Your task to perform on an android device: Go to privacy settings Image 0: 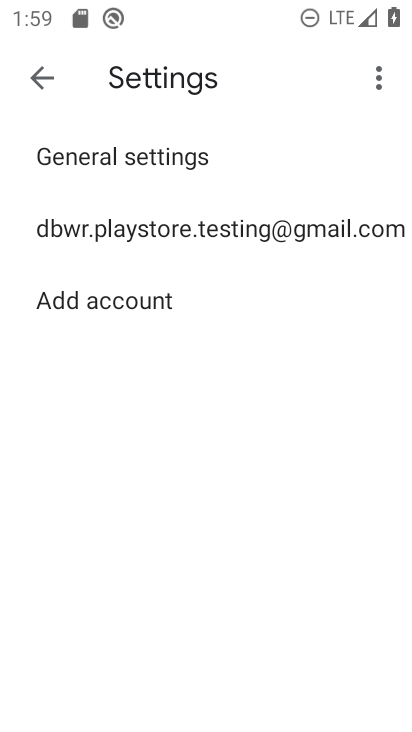
Step 0: press home button
Your task to perform on an android device: Go to privacy settings Image 1: 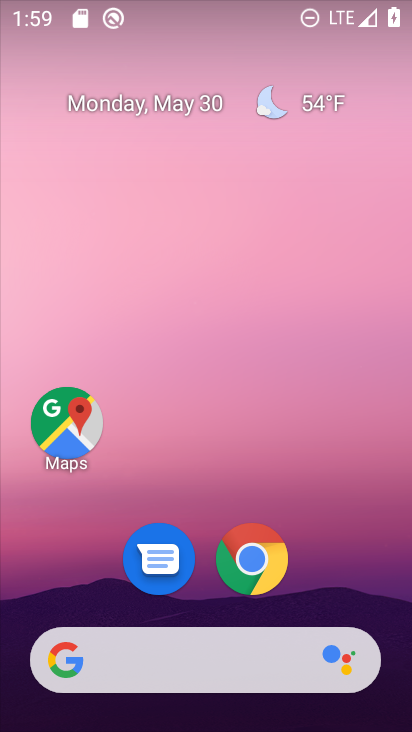
Step 1: drag from (308, 591) to (344, 3)
Your task to perform on an android device: Go to privacy settings Image 2: 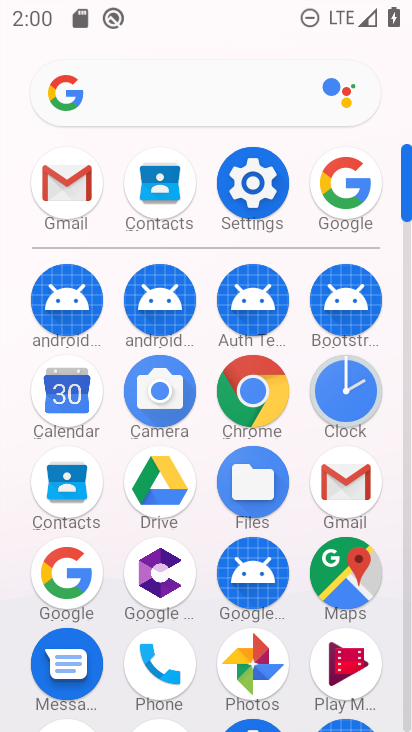
Step 2: click (241, 188)
Your task to perform on an android device: Go to privacy settings Image 3: 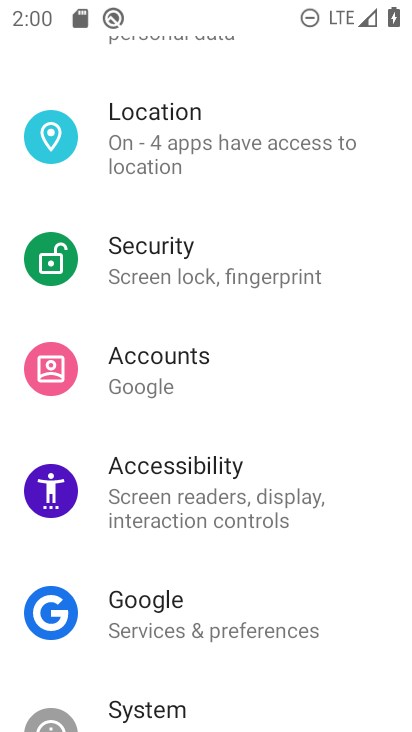
Step 3: drag from (168, 576) to (175, 651)
Your task to perform on an android device: Go to privacy settings Image 4: 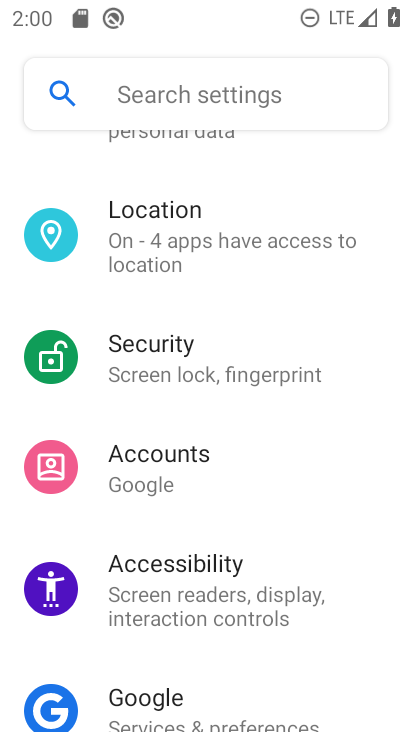
Step 4: drag from (220, 283) to (208, 502)
Your task to perform on an android device: Go to privacy settings Image 5: 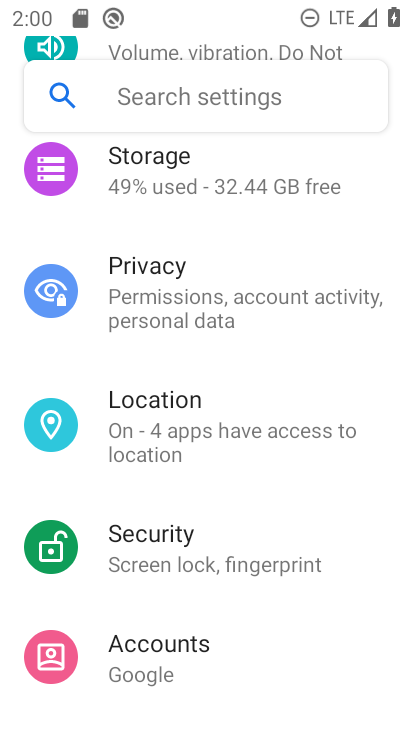
Step 5: click (214, 297)
Your task to perform on an android device: Go to privacy settings Image 6: 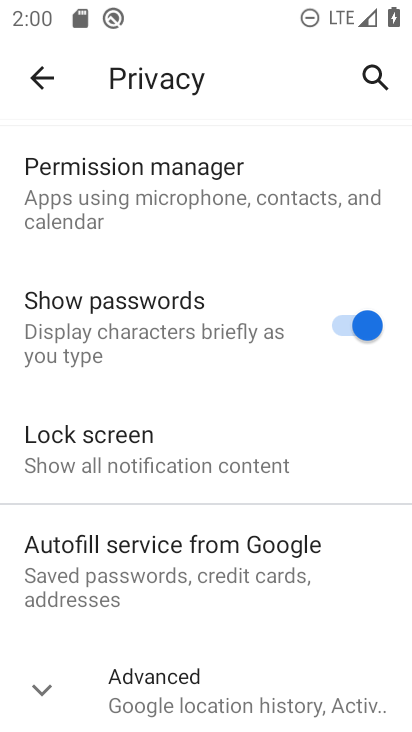
Step 6: task complete